Your task to perform on an android device: Go to CNN.com Image 0: 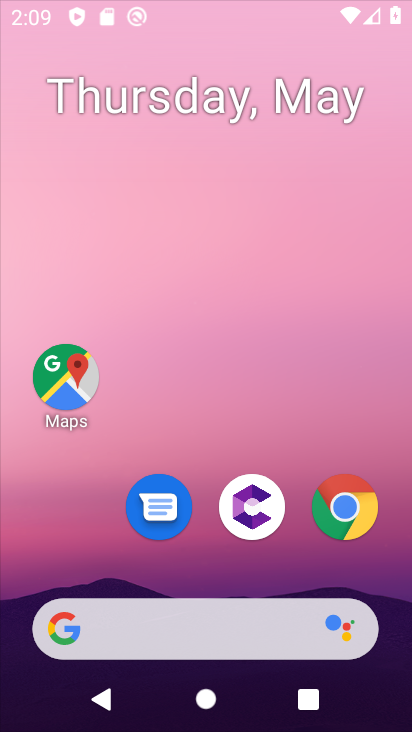
Step 0: press home button
Your task to perform on an android device: Go to CNN.com Image 1: 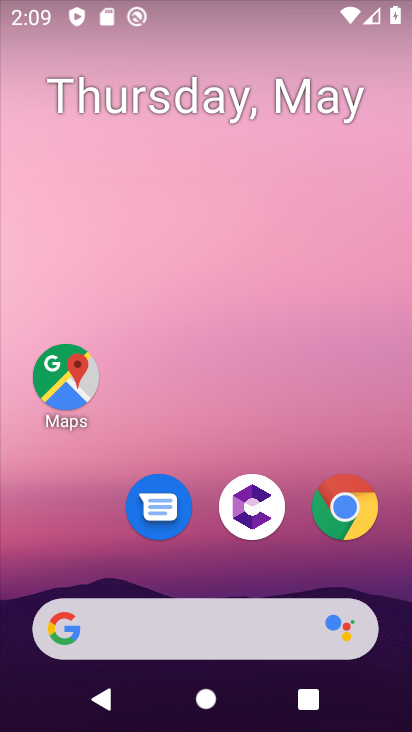
Step 1: click (45, 640)
Your task to perform on an android device: Go to CNN.com Image 2: 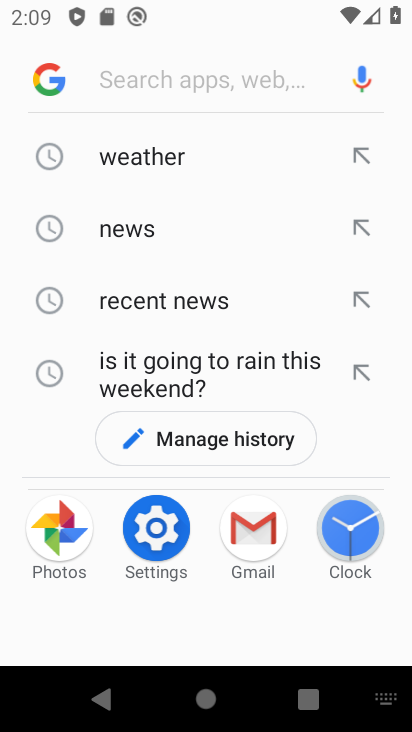
Step 2: type "CNN.com"
Your task to perform on an android device: Go to CNN.com Image 3: 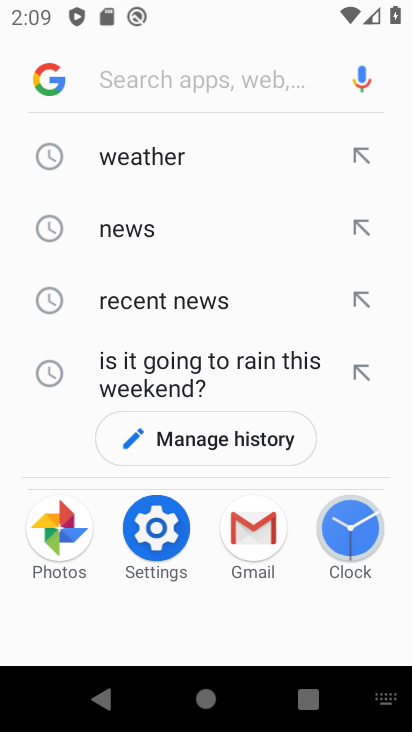
Step 3: click (159, 81)
Your task to perform on an android device: Go to CNN.com Image 4: 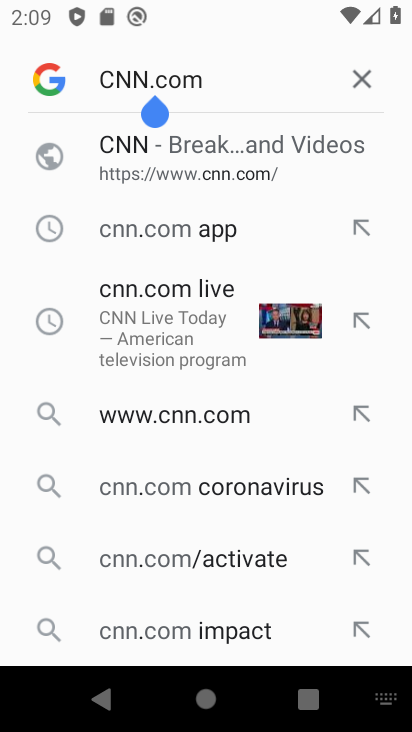
Step 4: click (181, 138)
Your task to perform on an android device: Go to CNN.com Image 5: 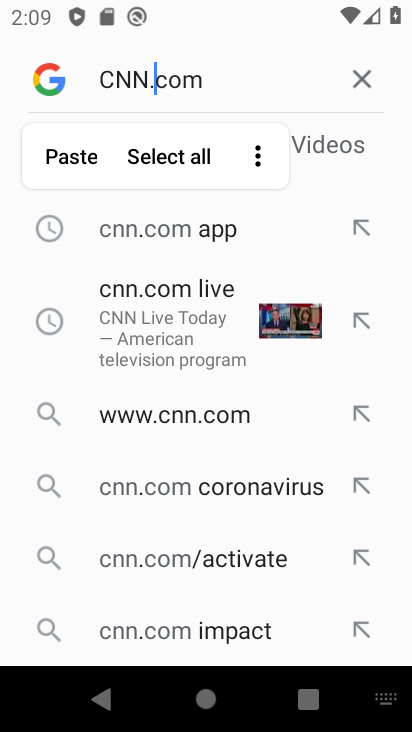
Step 5: click (215, 83)
Your task to perform on an android device: Go to CNN.com Image 6: 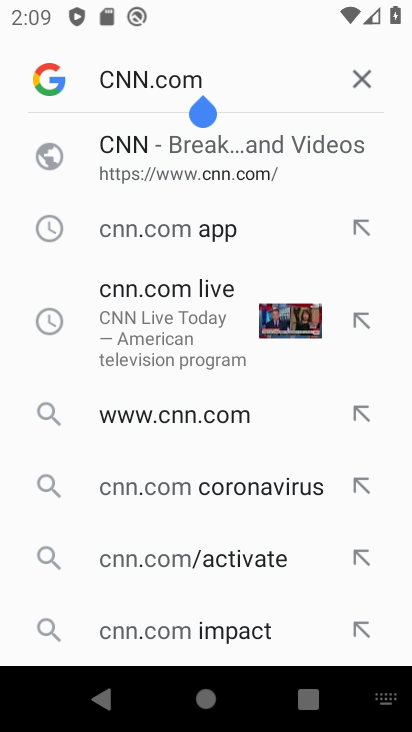
Step 6: click (149, 165)
Your task to perform on an android device: Go to CNN.com Image 7: 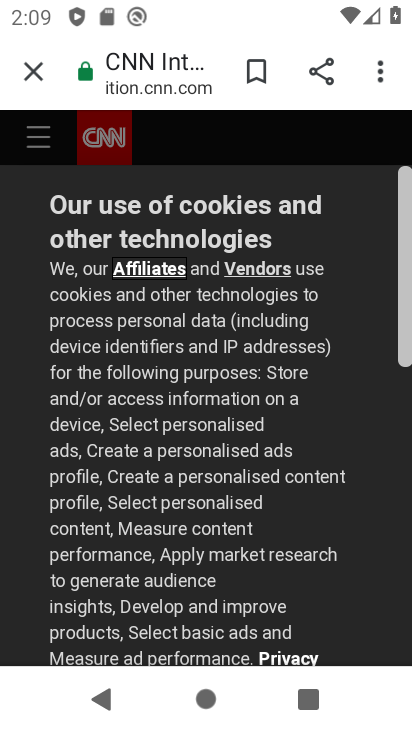
Step 7: task complete